Your task to perform on an android device: turn vacation reply on in the gmail app Image 0: 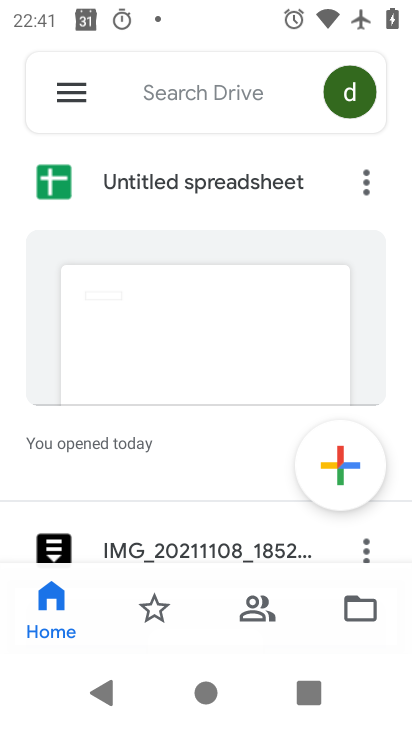
Step 0: drag from (195, 534) to (205, 49)
Your task to perform on an android device: turn vacation reply on in the gmail app Image 1: 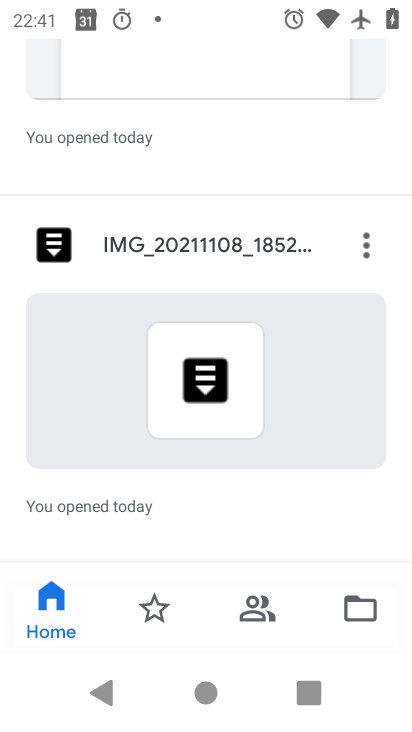
Step 1: press home button
Your task to perform on an android device: turn vacation reply on in the gmail app Image 2: 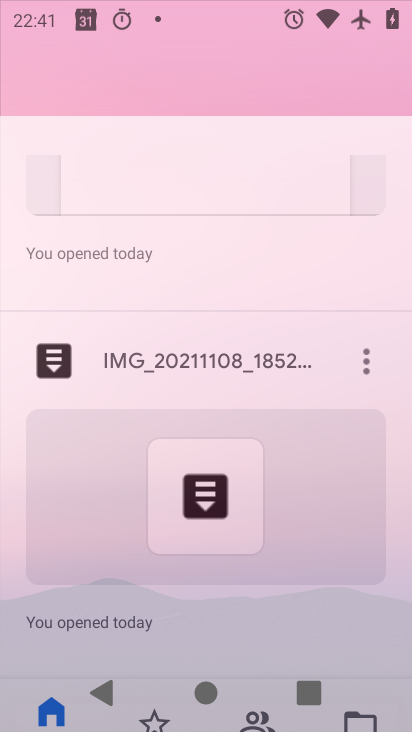
Step 2: drag from (184, 572) to (234, 8)
Your task to perform on an android device: turn vacation reply on in the gmail app Image 3: 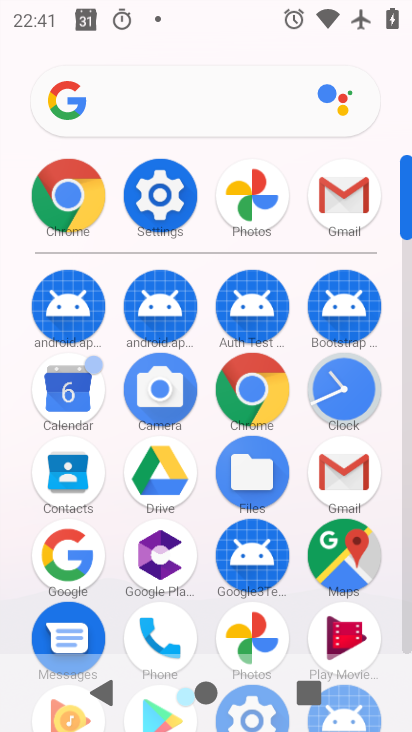
Step 3: click (366, 473)
Your task to perform on an android device: turn vacation reply on in the gmail app Image 4: 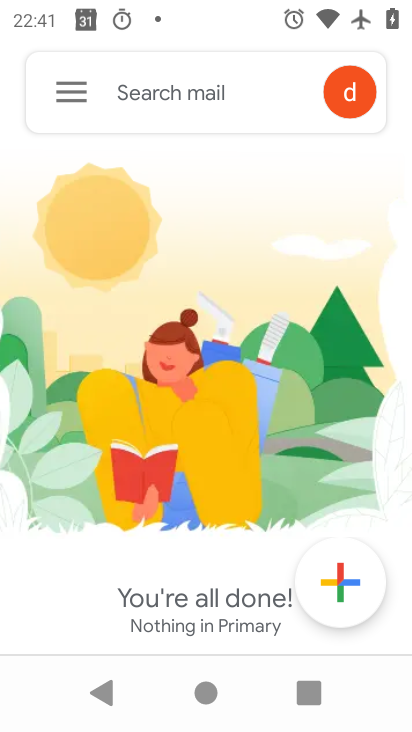
Step 4: click (64, 97)
Your task to perform on an android device: turn vacation reply on in the gmail app Image 5: 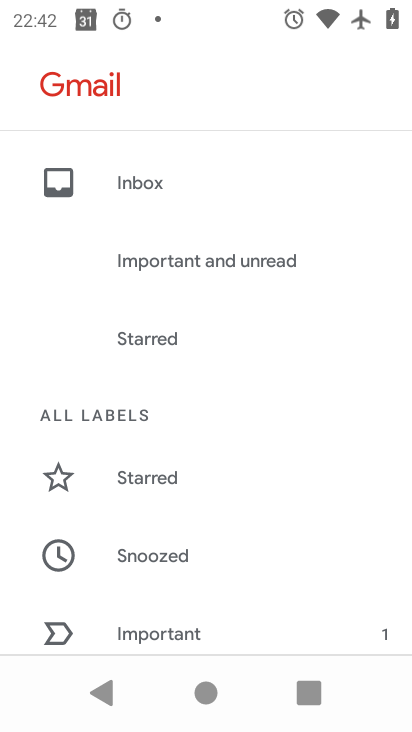
Step 5: drag from (189, 553) to (235, 130)
Your task to perform on an android device: turn vacation reply on in the gmail app Image 6: 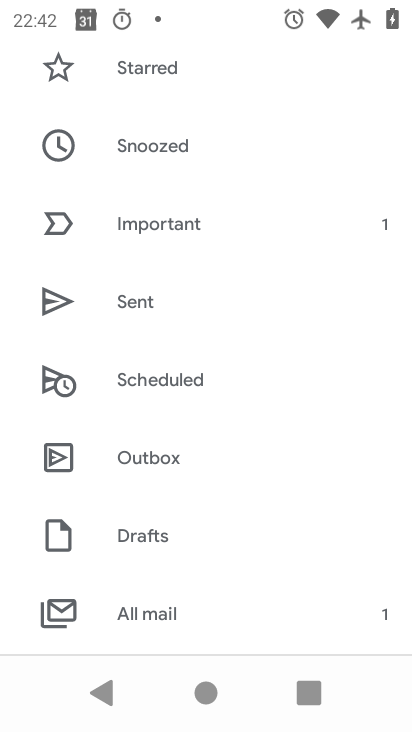
Step 6: drag from (203, 541) to (183, 36)
Your task to perform on an android device: turn vacation reply on in the gmail app Image 7: 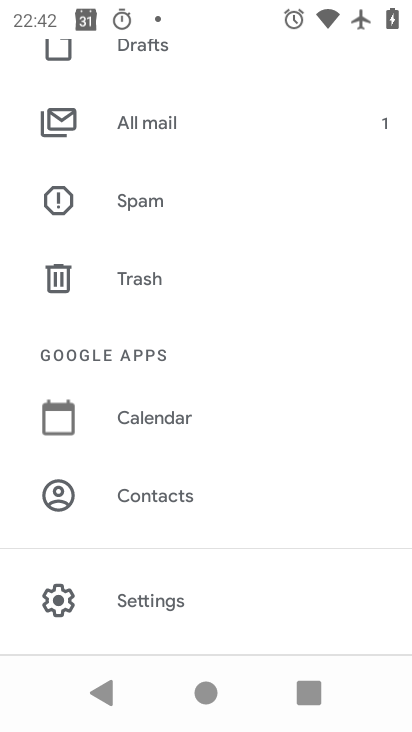
Step 7: click (122, 587)
Your task to perform on an android device: turn vacation reply on in the gmail app Image 8: 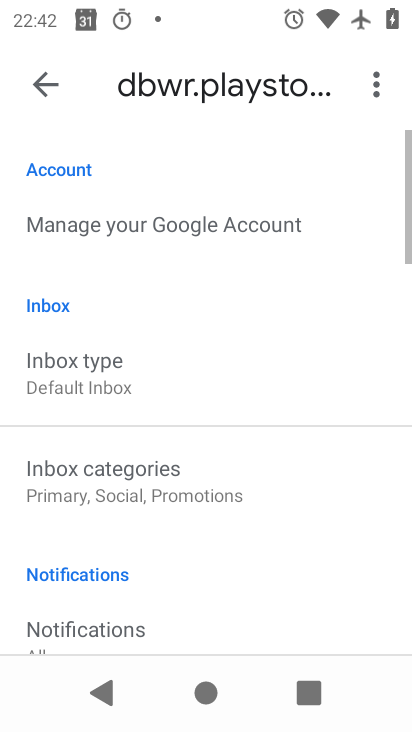
Step 8: drag from (170, 475) to (219, 96)
Your task to perform on an android device: turn vacation reply on in the gmail app Image 9: 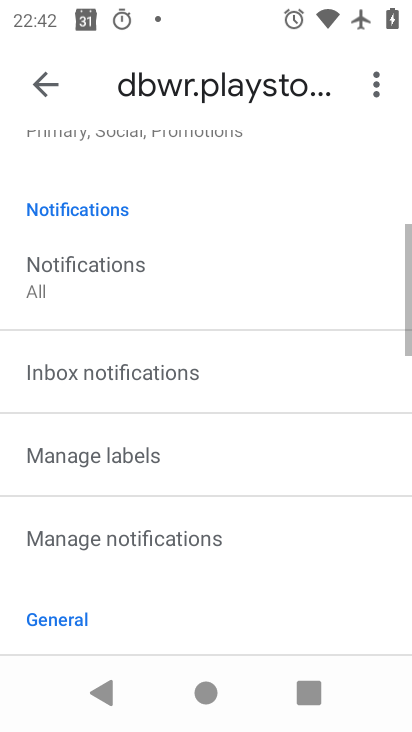
Step 9: drag from (140, 517) to (187, 166)
Your task to perform on an android device: turn vacation reply on in the gmail app Image 10: 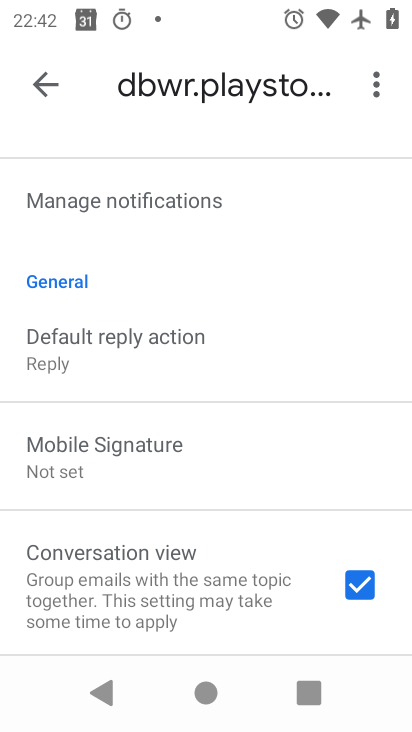
Step 10: drag from (176, 582) to (190, 9)
Your task to perform on an android device: turn vacation reply on in the gmail app Image 11: 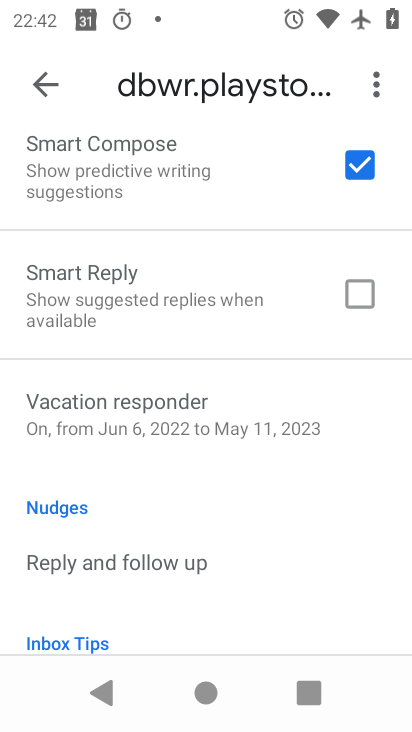
Step 11: click (192, 441)
Your task to perform on an android device: turn vacation reply on in the gmail app Image 12: 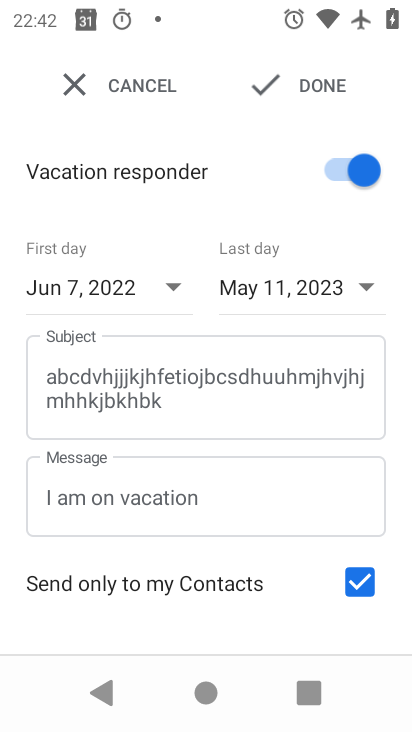
Step 12: click (305, 91)
Your task to perform on an android device: turn vacation reply on in the gmail app Image 13: 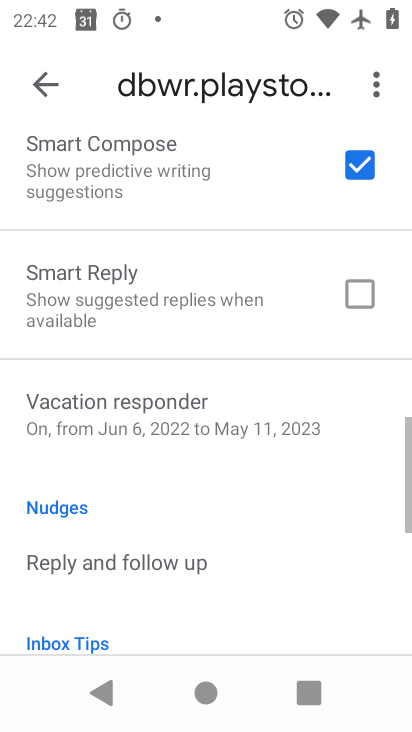
Step 13: task complete